Your task to perform on an android device: toggle wifi Image 0: 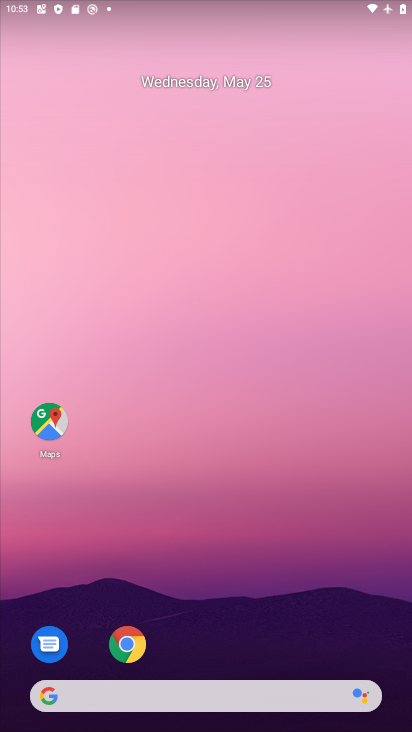
Step 0: drag from (215, 609) to (224, 103)
Your task to perform on an android device: toggle wifi Image 1: 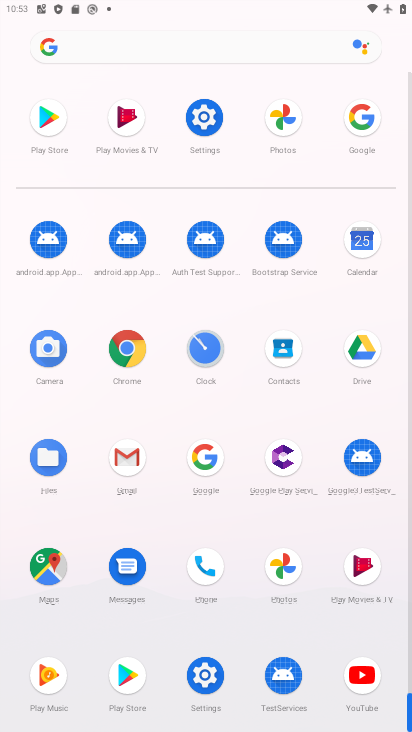
Step 1: click (198, 121)
Your task to perform on an android device: toggle wifi Image 2: 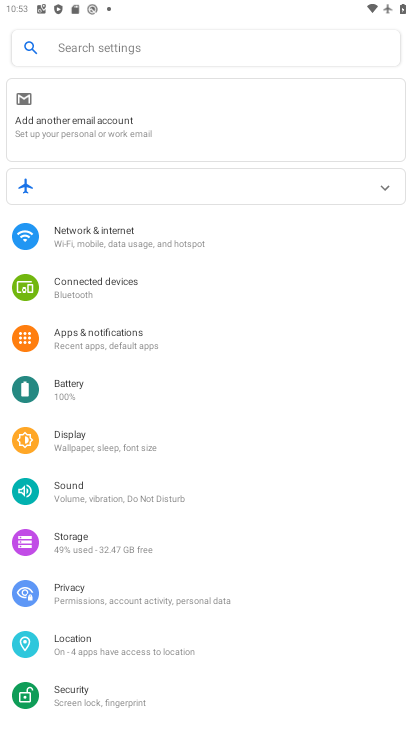
Step 2: click (100, 246)
Your task to perform on an android device: toggle wifi Image 3: 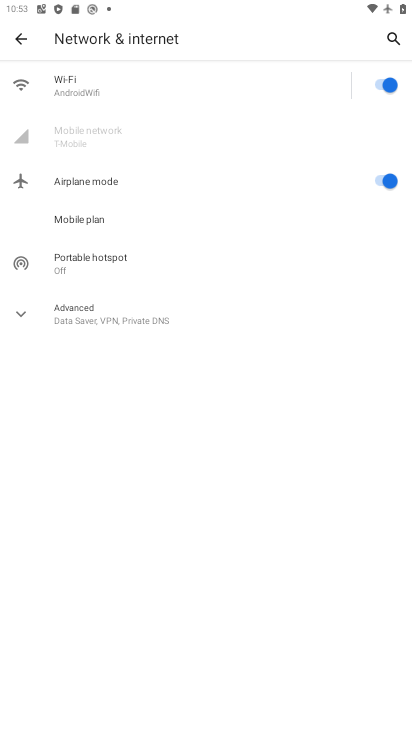
Step 3: click (363, 88)
Your task to perform on an android device: toggle wifi Image 4: 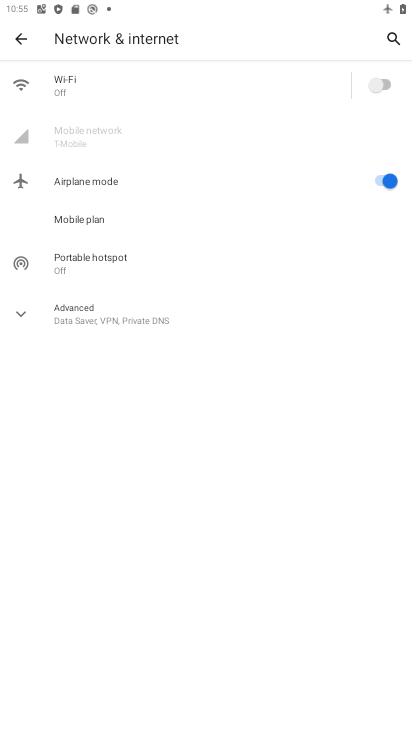
Step 4: task complete